Your task to perform on an android device: Open calendar and show me the third week of next month Image 0: 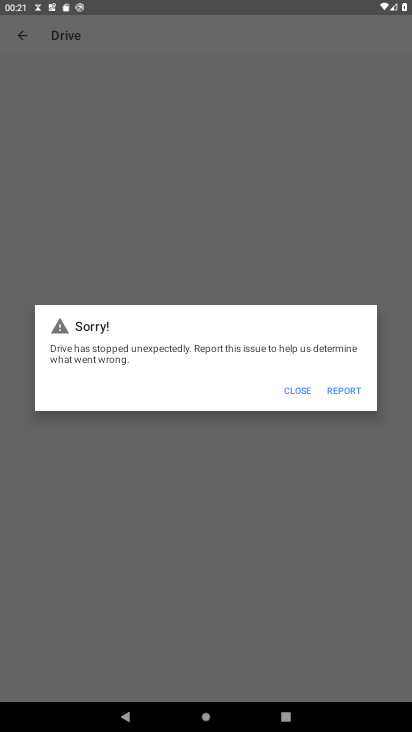
Step 0: press home button
Your task to perform on an android device: Open calendar and show me the third week of next month Image 1: 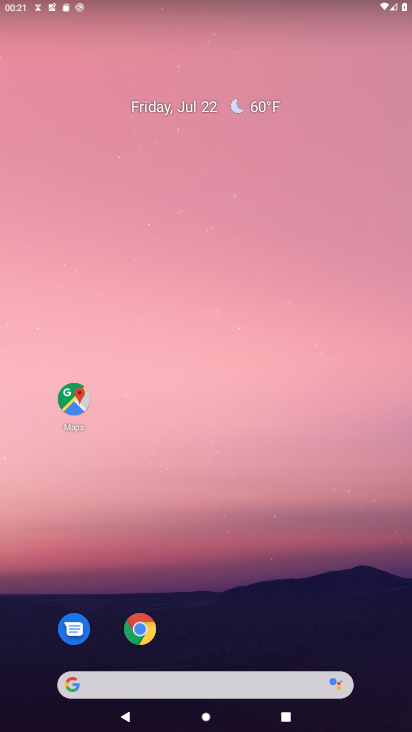
Step 1: drag from (235, 630) to (231, 227)
Your task to perform on an android device: Open calendar and show me the third week of next month Image 2: 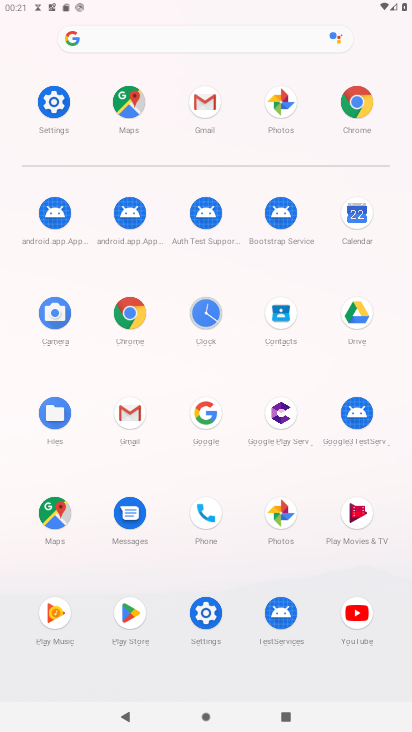
Step 2: click (355, 215)
Your task to perform on an android device: Open calendar and show me the third week of next month Image 3: 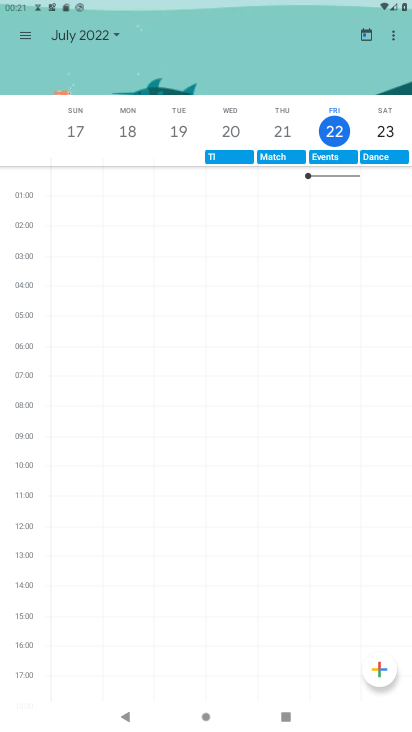
Step 3: click (20, 24)
Your task to perform on an android device: Open calendar and show me the third week of next month Image 4: 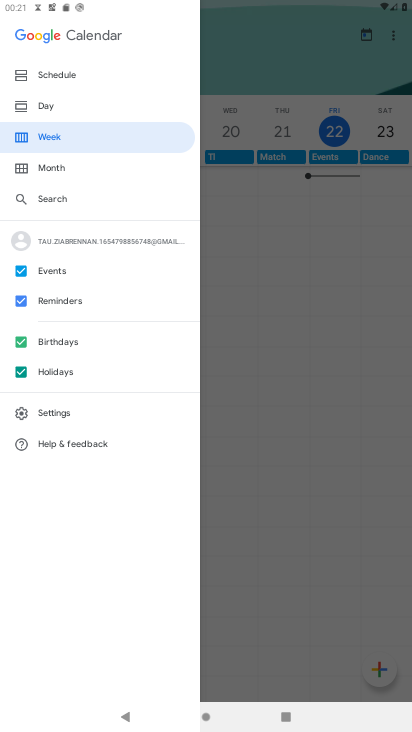
Step 4: click (55, 163)
Your task to perform on an android device: Open calendar and show me the third week of next month Image 5: 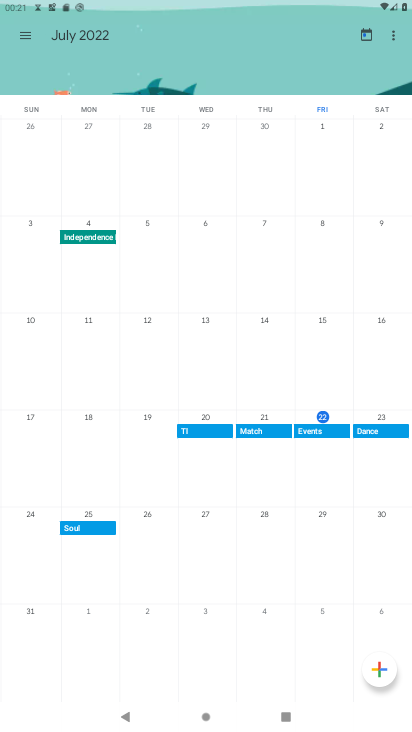
Step 5: drag from (312, 209) to (13, 276)
Your task to perform on an android device: Open calendar and show me the third week of next month Image 6: 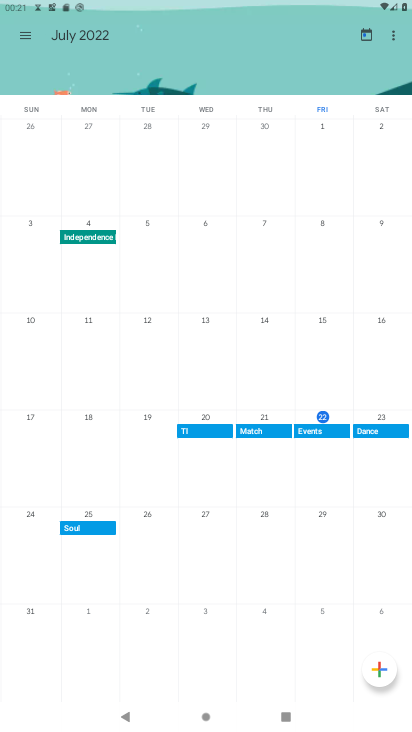
Step 6: click (411, 303)
Your task to perform on an android device: Open calendar and show me the third week of next month Image 7: 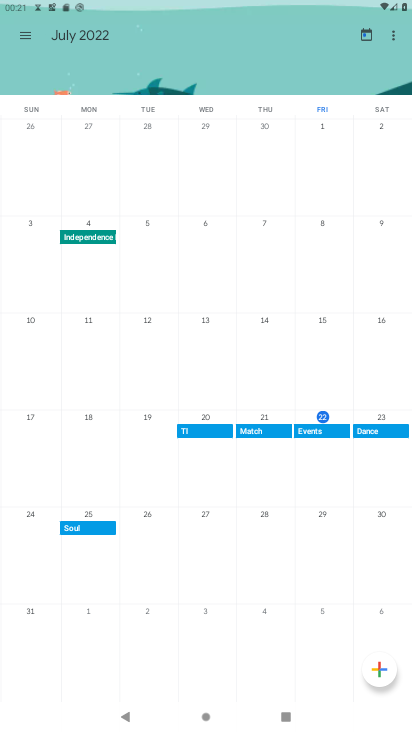
Step 7: drag from (399, 294) to (6, 300)
Your task to perform on an android device: Open calendar and show me the third week of next month Image 8: 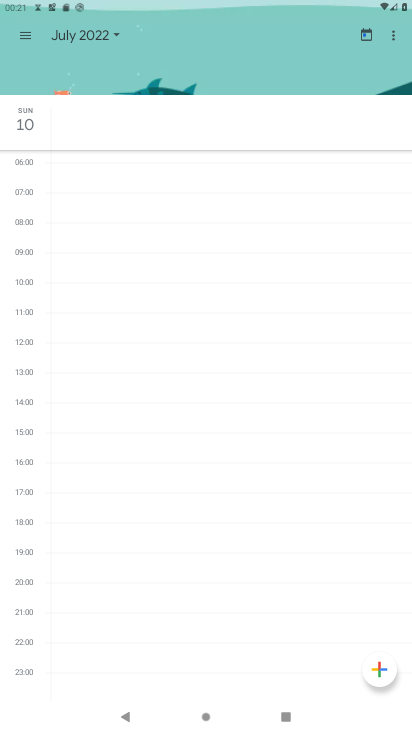
Step 8: click (22, 26)
Your task to perform on an android device: Open calendar and show me the third week of next month Image 9: 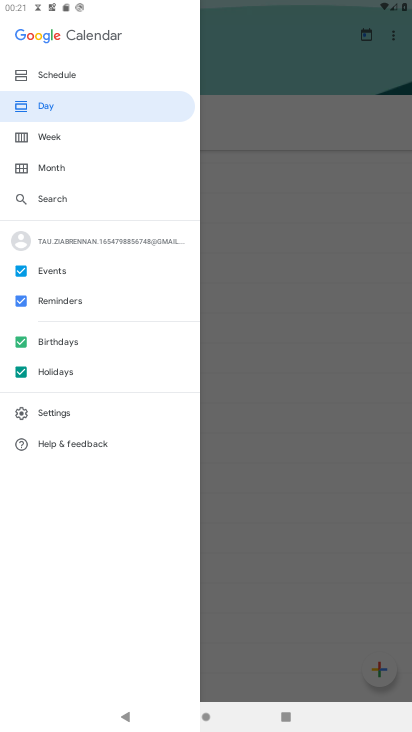
Step 9: click (74, 169)
Your task to perform on an android device: Open calendar and show me the third week of next month Image 10: 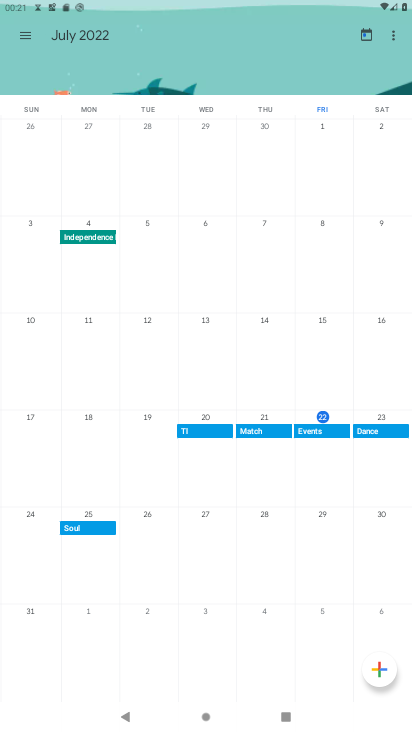
Step 10: drag from (325, 297) to (1, 226)
Your task to perform on an android device: Open calendar and show me the third week of next month Image 11: 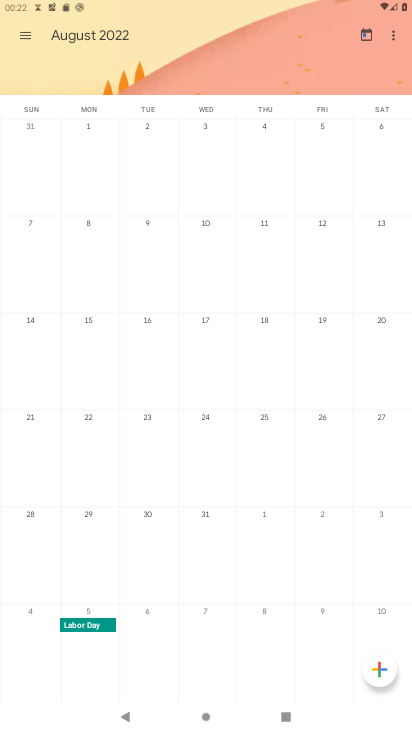
Step 11: drag from (303, 282) to (2, 308)
Your task to perform on an android device: Open calendar and show me the third week of next month Image 12: 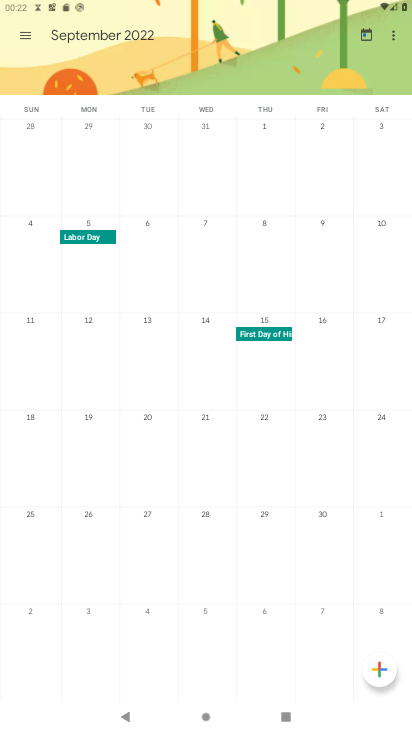
Step 12: drag from (70, 196) to (372, 256)
Your task to perform on an android device: Open calendar and show me the third week of next month Image 13: 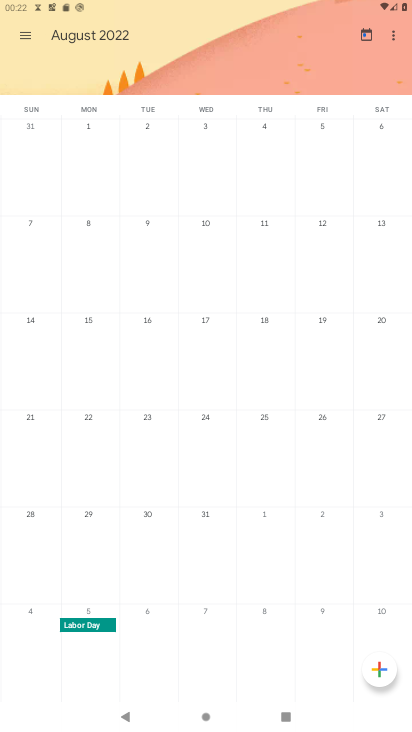
Step 13: click (20, 28)
Your task to perform on an android device: Open calendar and show me the third week of next month Image 14: 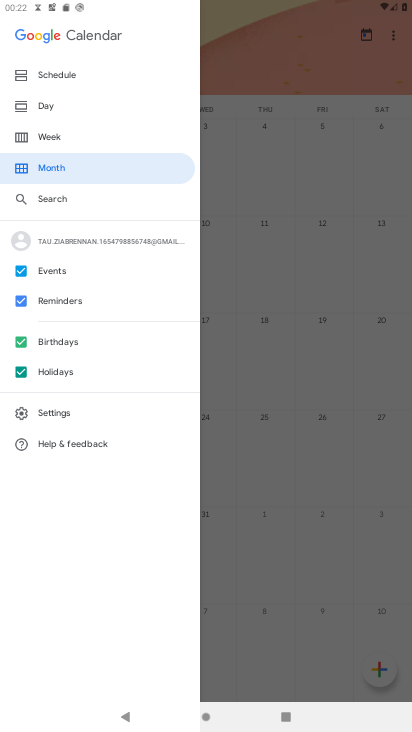
Step 14: click (53, 127)
Your task to perform on an android device: Open calendar and show me the third week of next month Image 15: 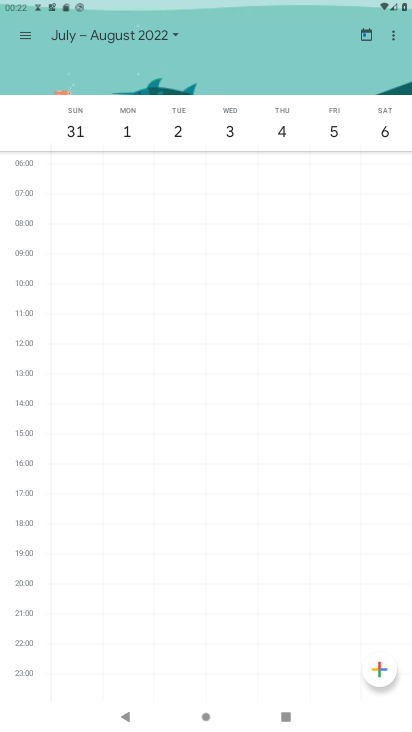
Step 15: task complete